Your task to perform on an android device: stop showing notifications on the lock screen Image 0: 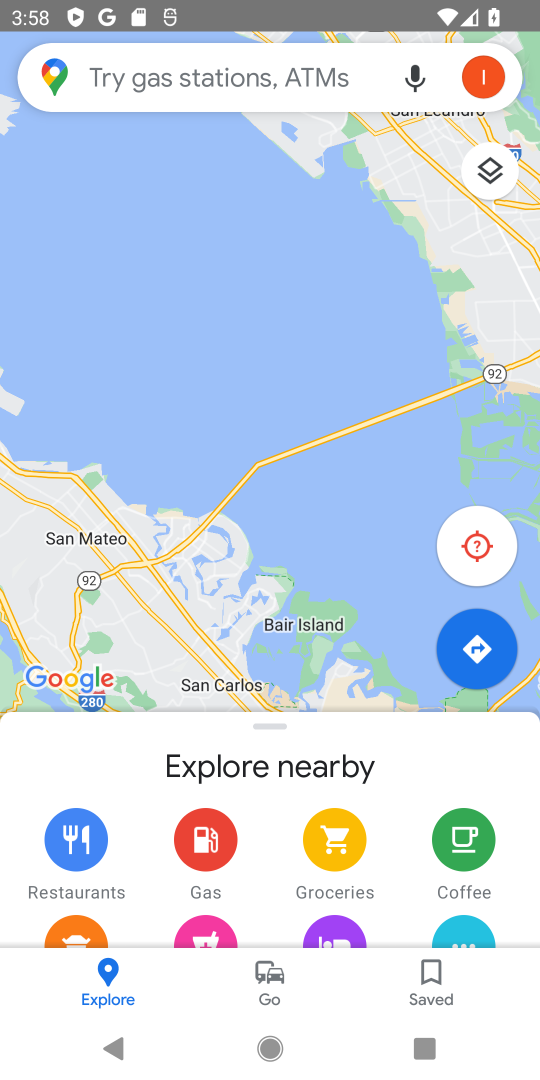
Step 0: press home button
Your task to perform on an android device: stop showing notifications on the lock screen Image 1: 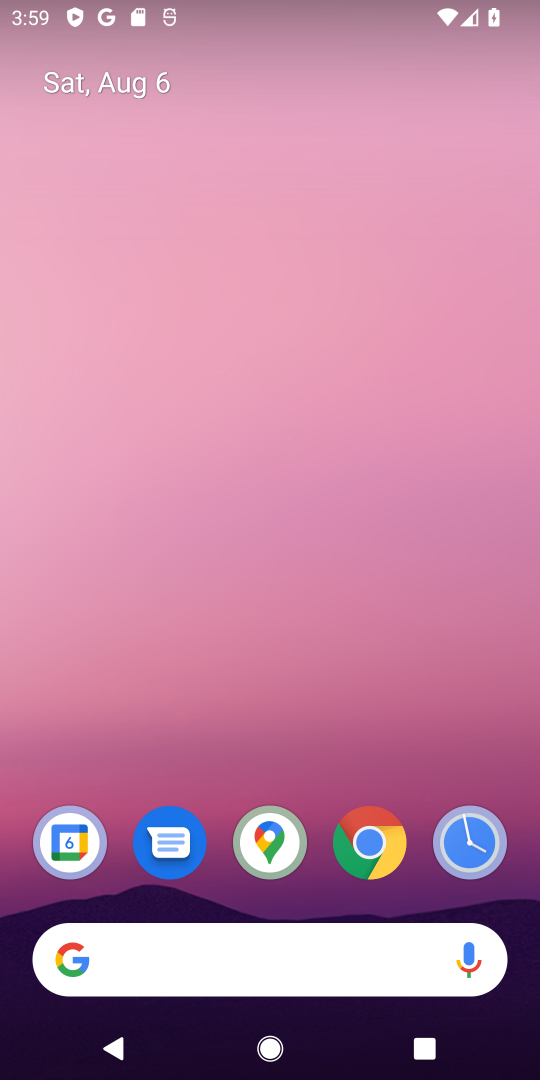
Step 1: drag from (470, 755) to (431, 195)
Your task to perform on an android device: stop showing notifications on the lock screen Image 2: 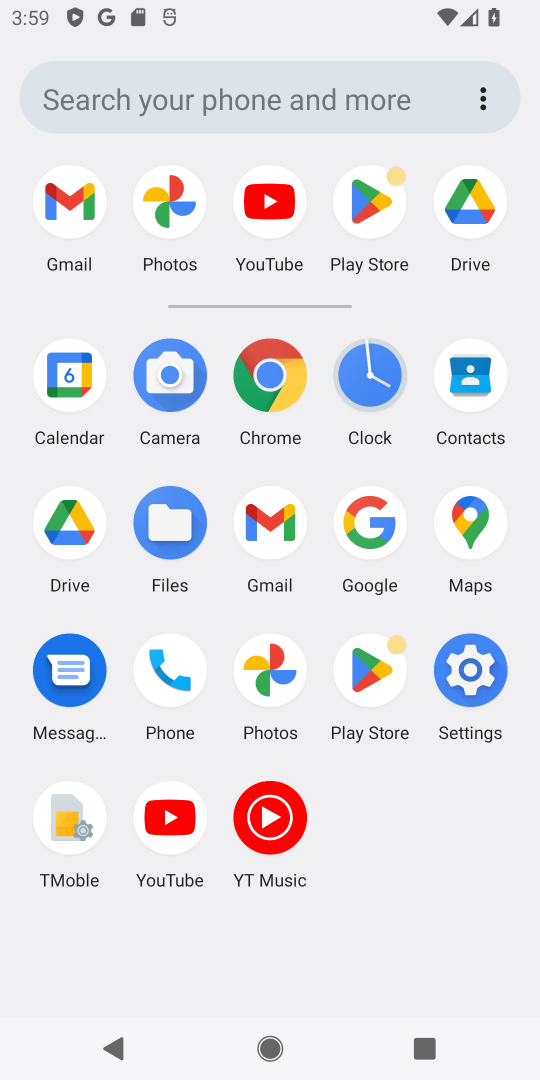
Step 2: click (461, 686)
Your task to perform on an android device: stop showing notifications on the lock screen Image 3: 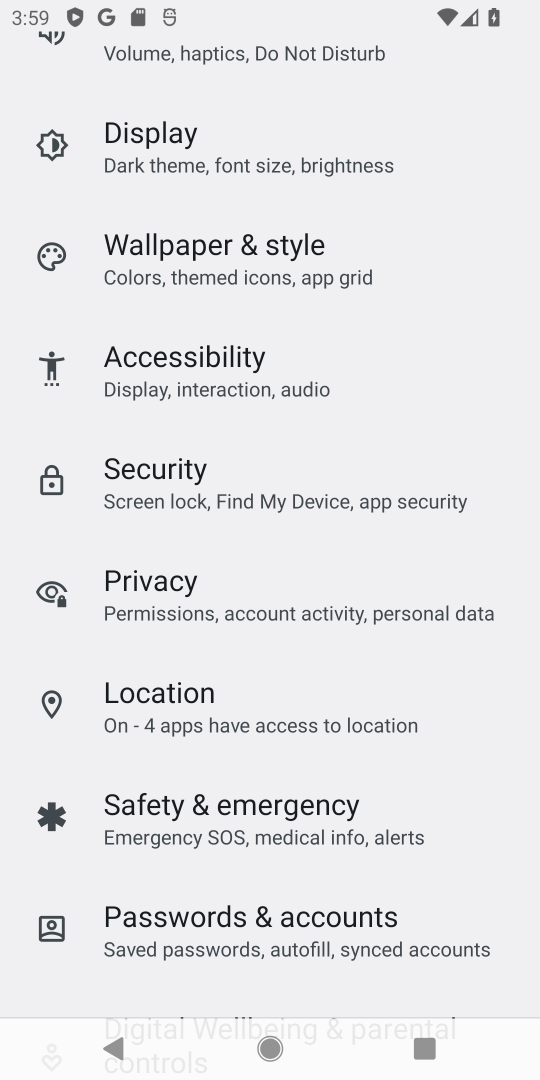
Step 3: drag from (395, 146) to (420, 827)
Your task to perform on an android device: stop showing notifications on the lock screen Image 4: 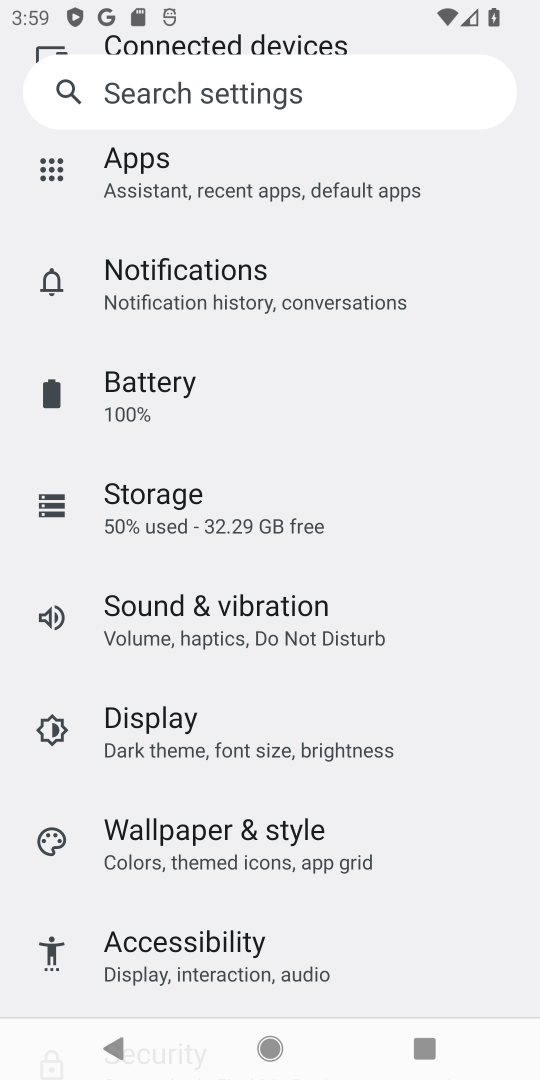
Step 4: drag from (441, 226) to (416, 811)
Your task to perform on an android device: stop showing notifications on the lock screen Image 5: 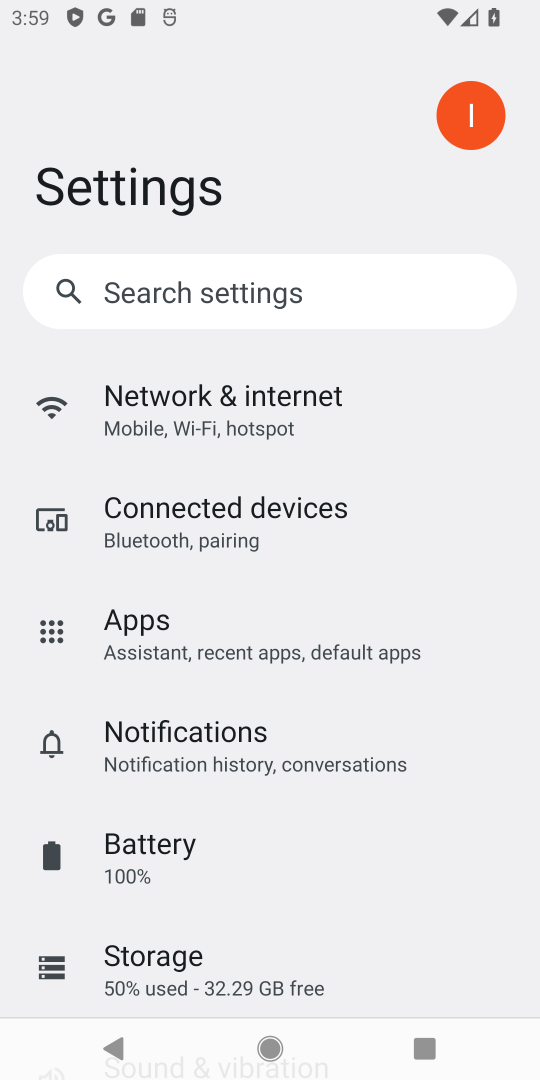
Step 5: drag from (421, 198) to (426, 748)
Your task to perform on an android device: stop showing notifications on the lock screen Image 6: 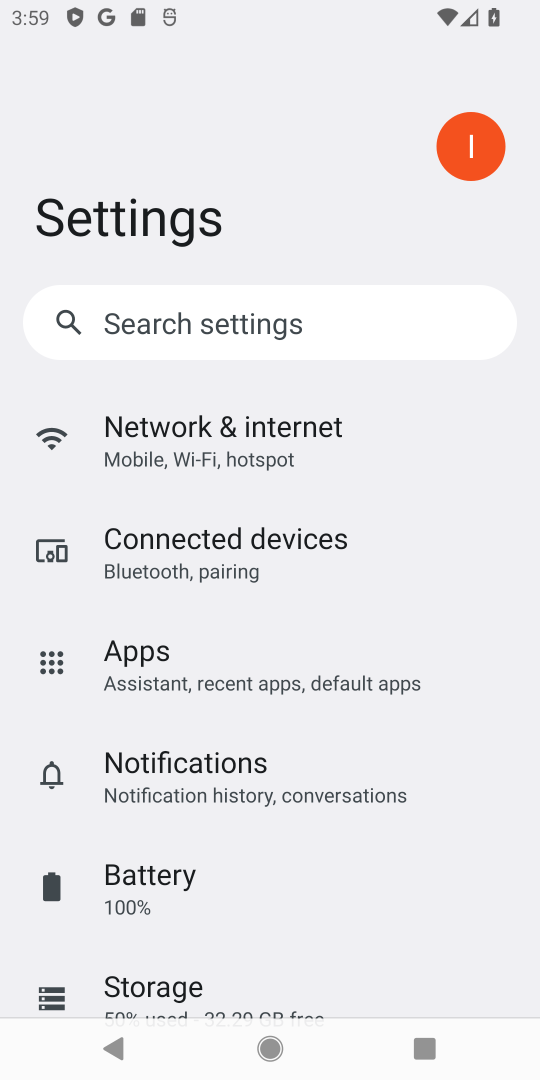
Step 6: click (196, 774)
Your task to perform on an android device: stop showing notifications on the lock screen Image 7: 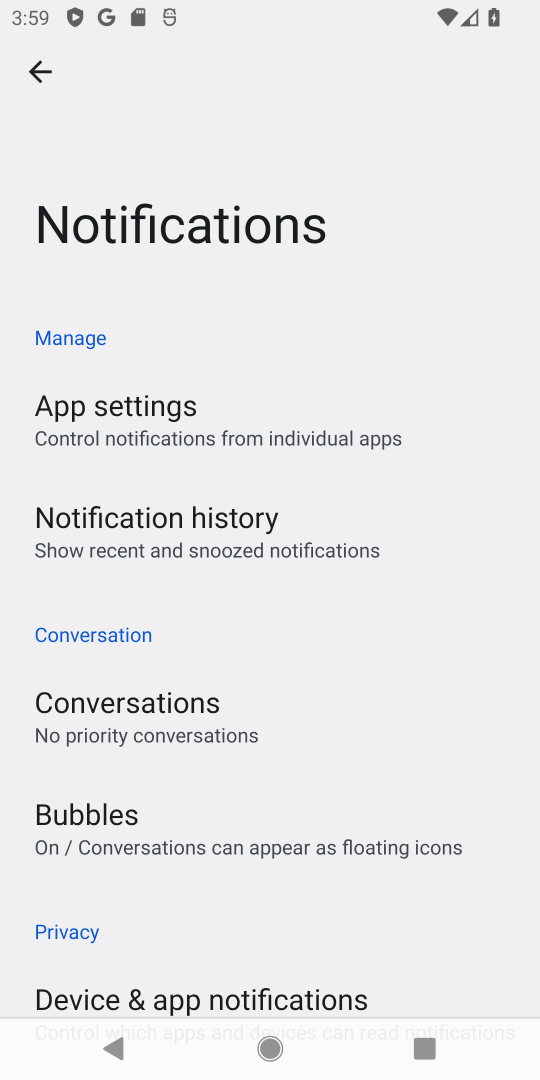
Step 7: drag from (437, 947) to (422, 409)
Your task to perform on an android device: stop showing notifications on the lock screen Image 8: 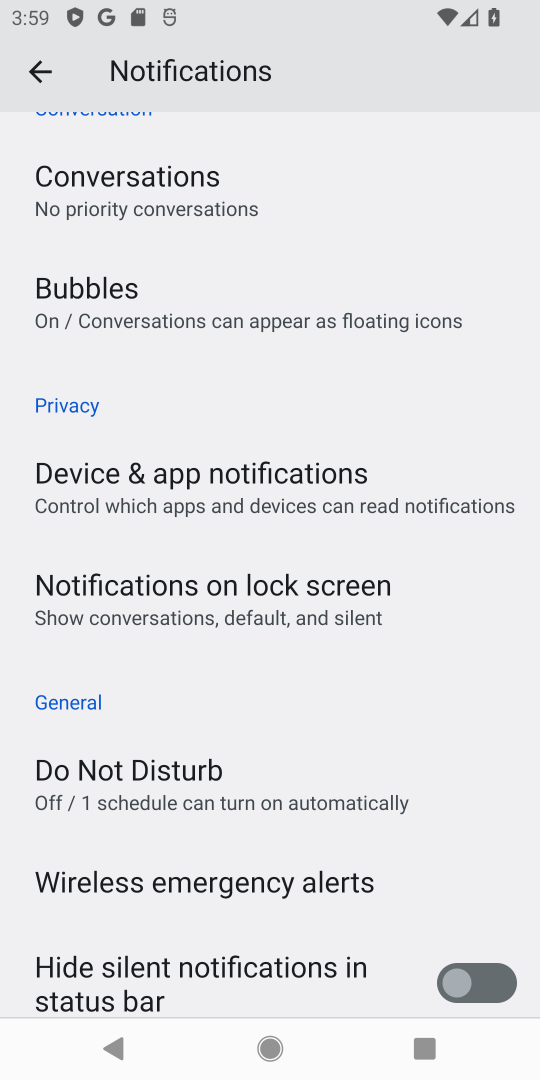
Step 8: drag from (463, 887) to (396, 398)
Your task to perform on an android device: stop showing notifications on the lock screen Image 9: 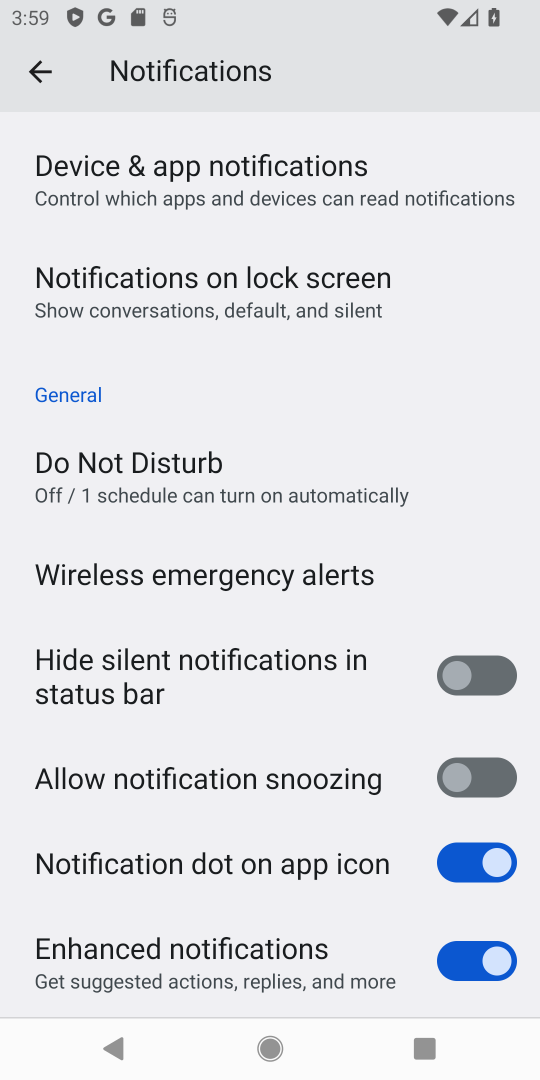
Step 9: drag from (398, 832) to (358, 396)
Your task to perform on an android device: stop showing notifications on the lock screen Image 10: 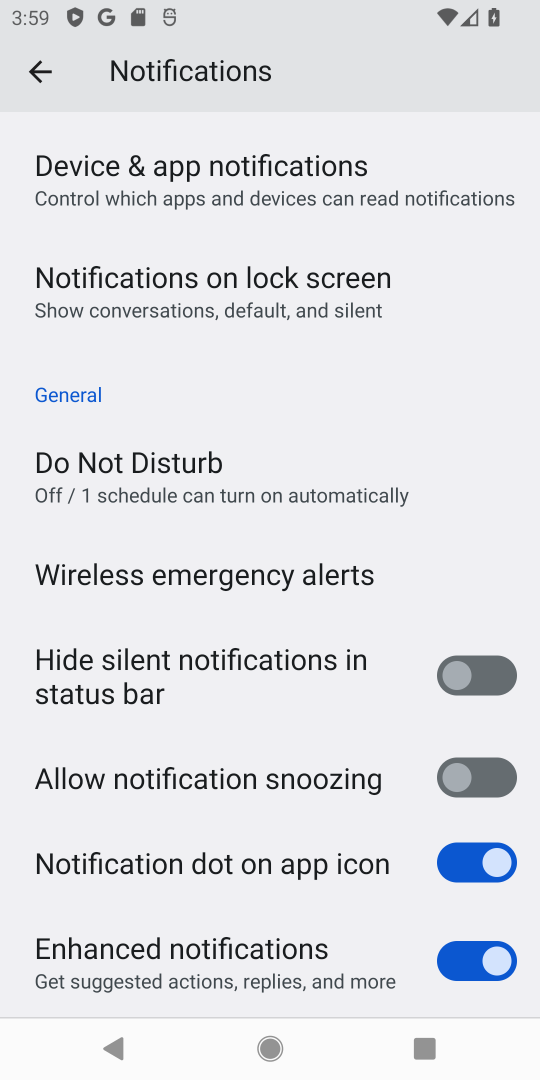
Step 10: click (164, 270)
Your task to perform on an android device: stop showing notifications on the lock screen Image 11: 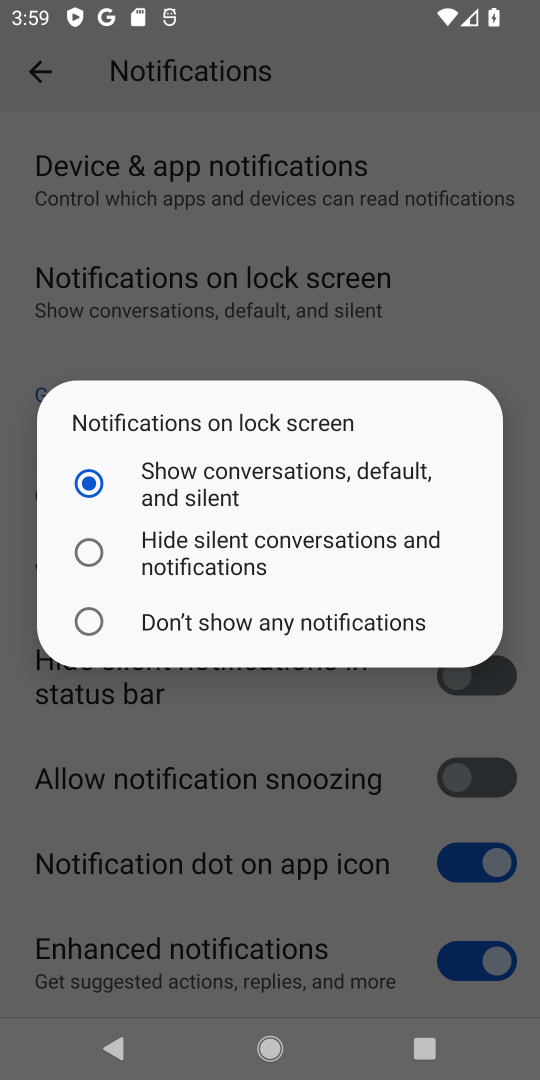
Step 11: task complete